Your task to perform on an android device: Open the Play Movies app and select the watchlist tab. Image 0: 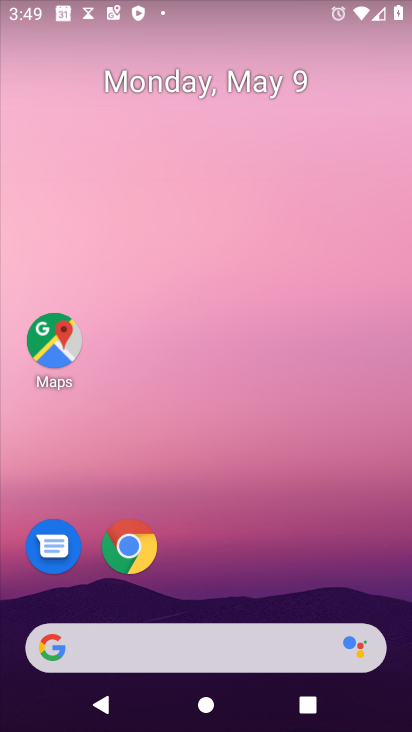
Step 0: drag from (245, 519) to (173, 124)
Your task to perform on an android device: Open the Play Movies app and select the watchlist tab. Image 1: 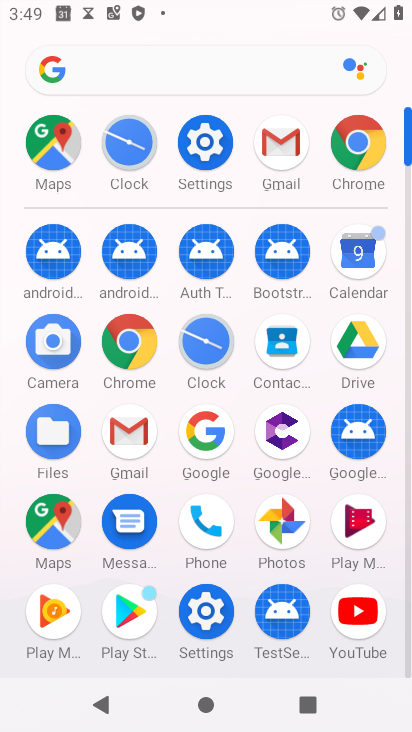
Step 1: click (349, 531)
Your task to perform on an android device: Open the Play Movies app and select the watchlist tab. Image 2: 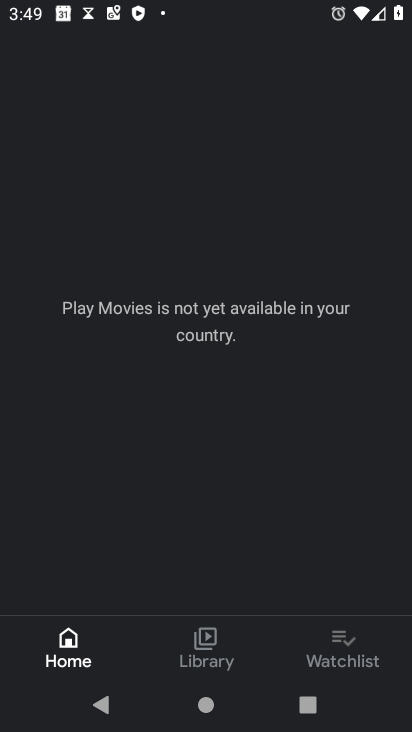
Step 2: click (360, 661)
Your task to perform on an android device: Open the Play Movies app and select the watchlist tab. Image 3: 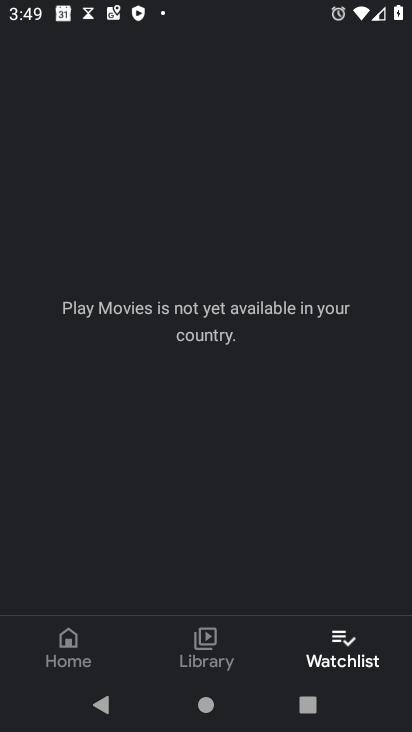
Step 3: task complete